Your task to perform on an android device: see creations saved in the google photos Image 0: 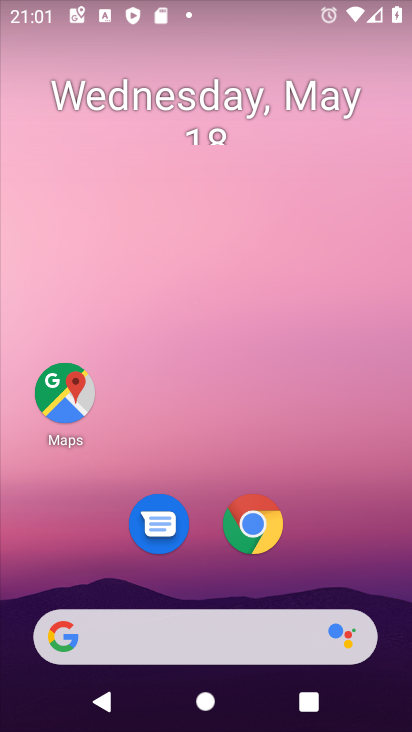
Step 0: drag from (349, 557) to (311, 55)
Your task to perform on an android device: see creations saved in the google photos Image 1: 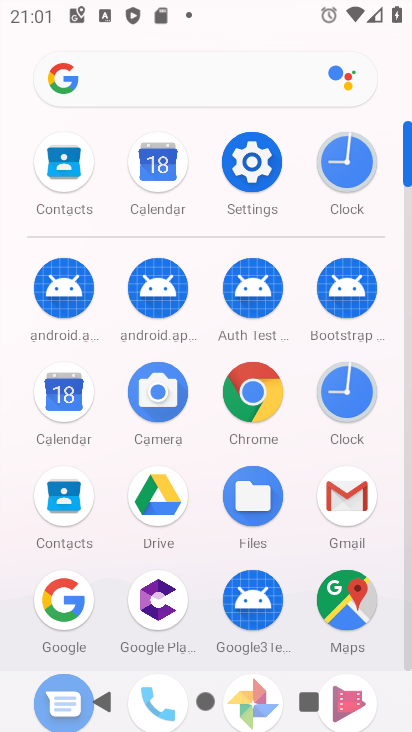
Step 1: drag from (284, 415) to (288, 217)
Your task to perform on an android device: see creations saved in the google photos Image 2: 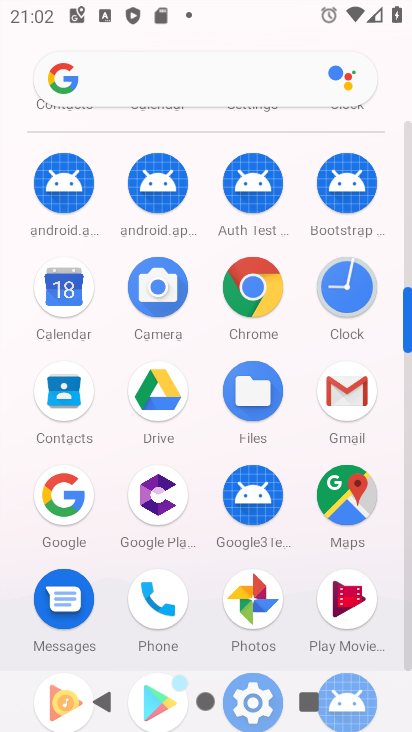
Step 2: click (246, 579)
Your task to perform on an android device: see creations saved in the google photos Image 3: 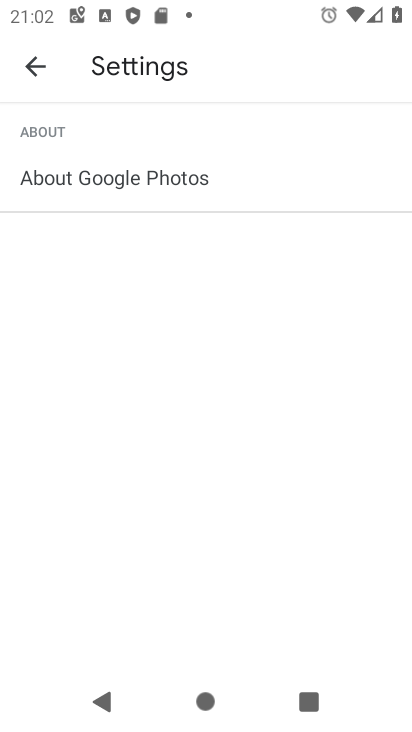
Step 3: click (34, 66)
Your task to perform on an android device: see creations saved in the google photos Image 4: 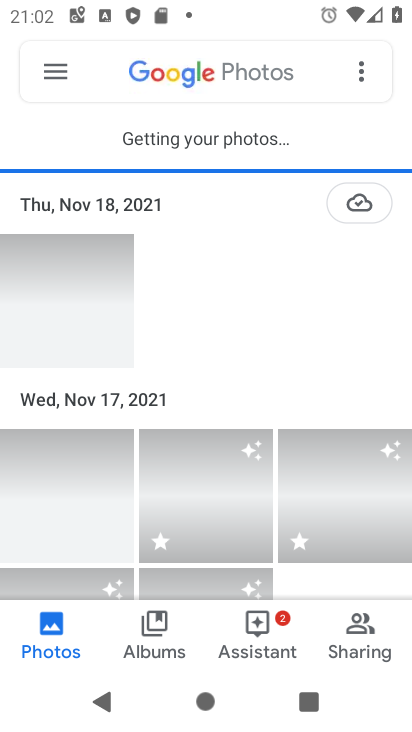
Step 4: click (194, 60)
Your task to perform on an android device: see creations saved in the google photos Image 5: 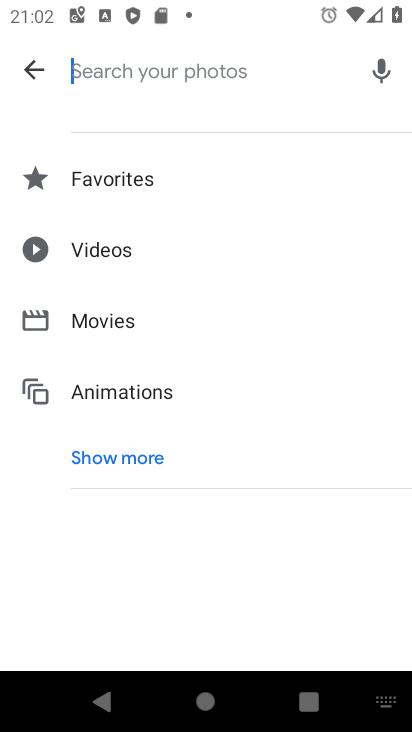
Step 5: click (146, 459)
Your task to perform on an android device: see creations saved in the google photos Image 6: 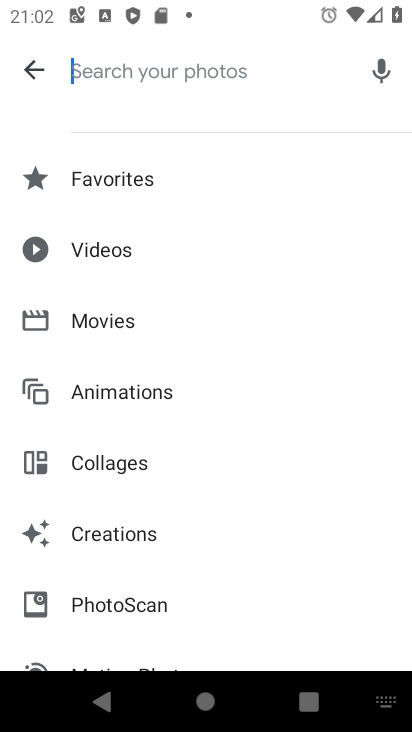
Step 6: click (139, 525)
Your task to perform on an android device: see creations saved in the google photos Image 7: 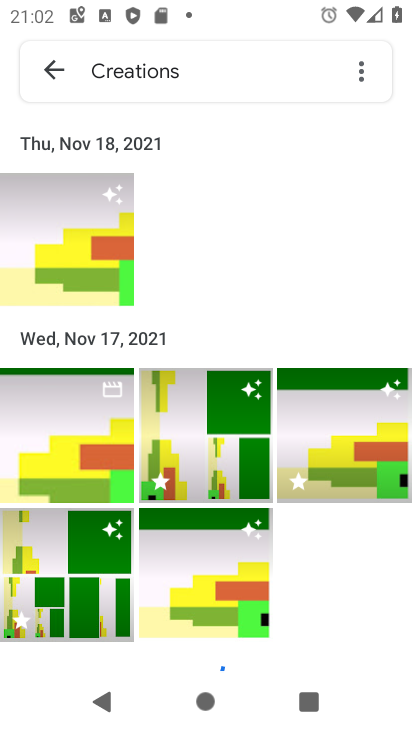
Step 7: task complete